Your task to perform on an android device: turn off location history Image 0: 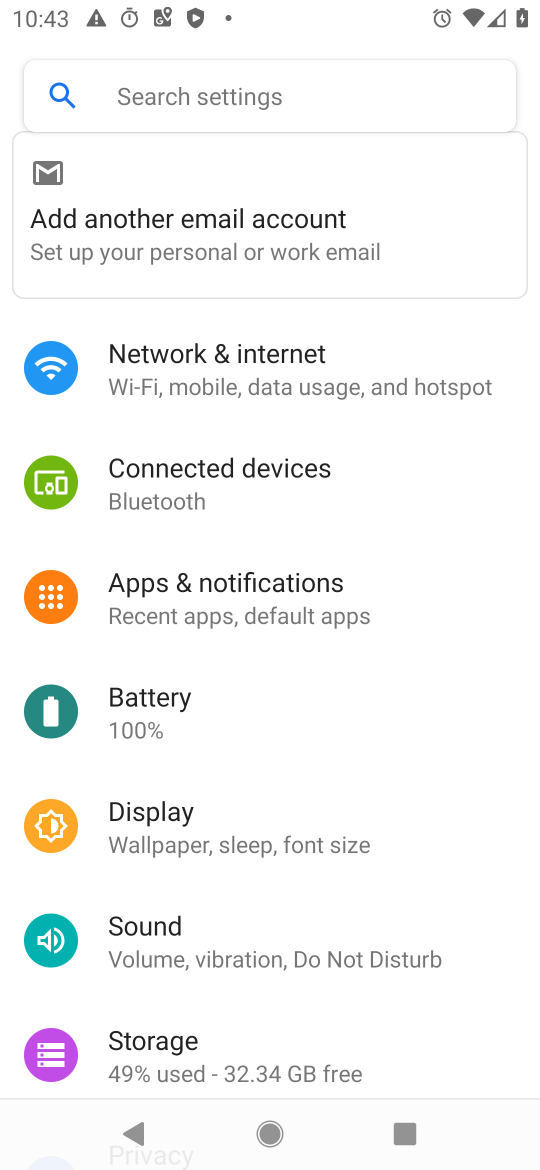
Step 0: press home button
Your task to perform on an android device: turn off location history Image 1: 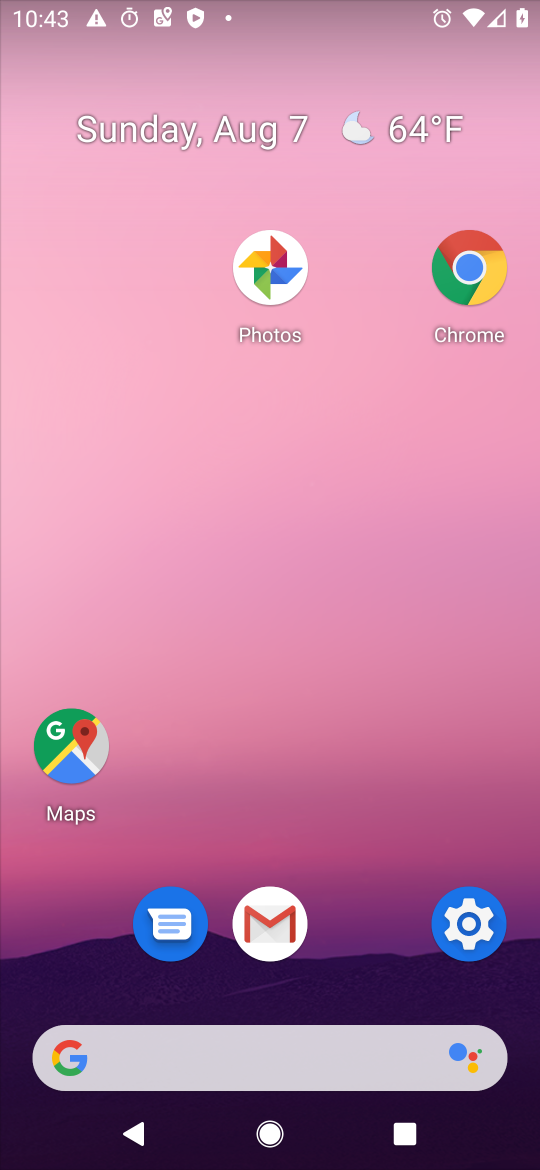
Step 1: click (468, 914)
Your task to perform on an android device: turn off location history Image 2: 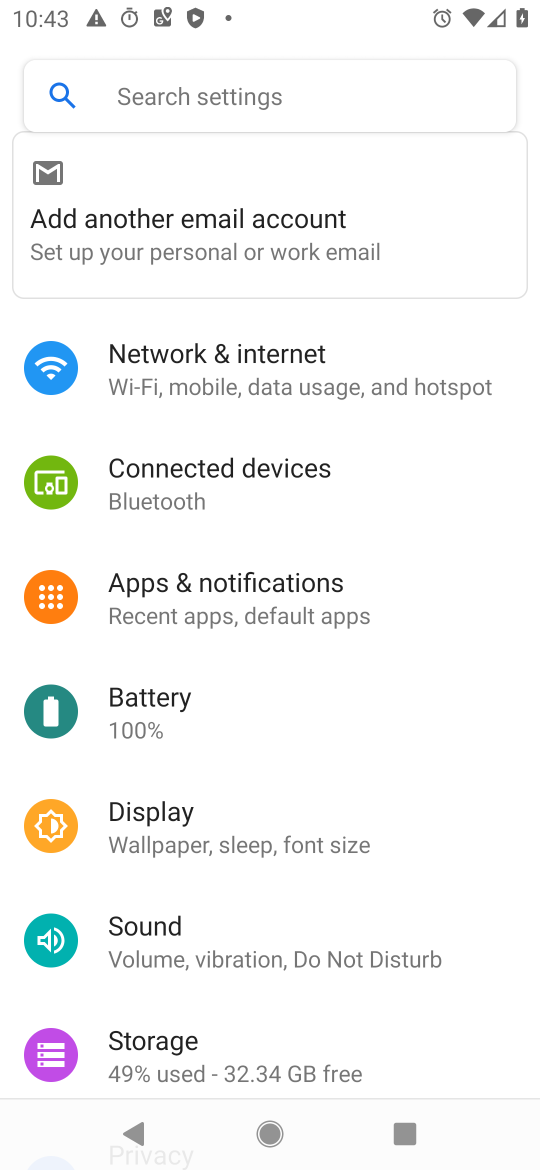
Step 2: click (171, 107)
Your task to perform on an android device: turn off location history Image 3: 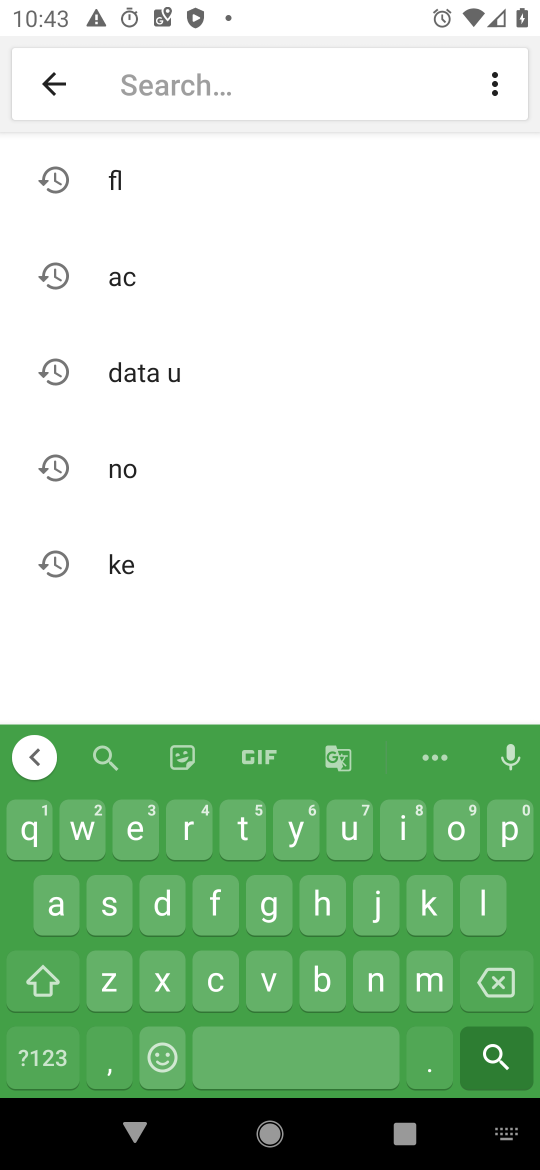
Step 3: click (486, 910)
Your task to perform on an android device: turn off location history Image 4: 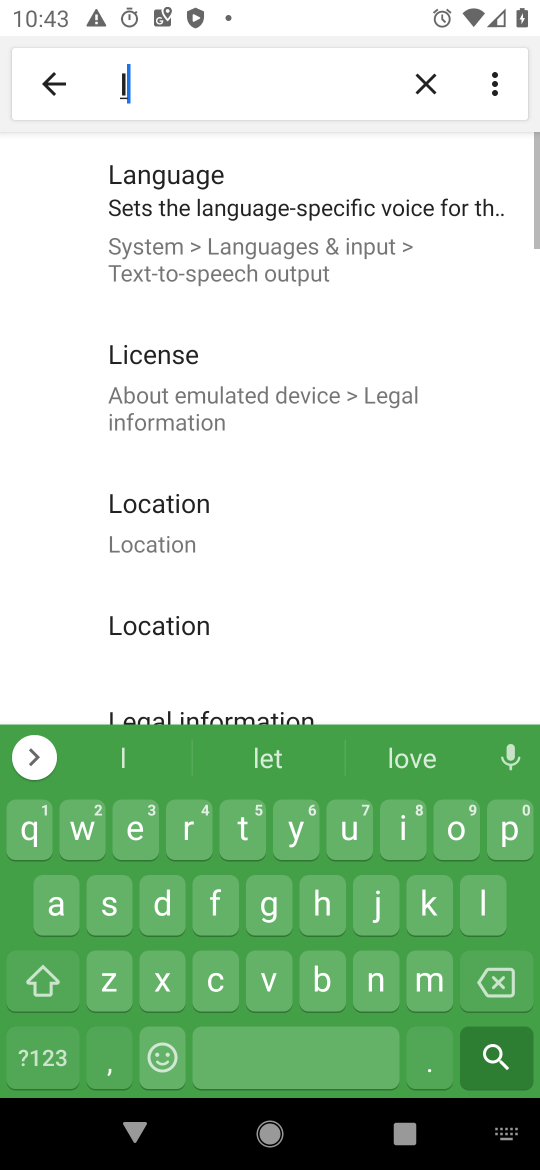
Step 4: click (450, 839)
Your task to perform on an android device: turn off location history Image 5: 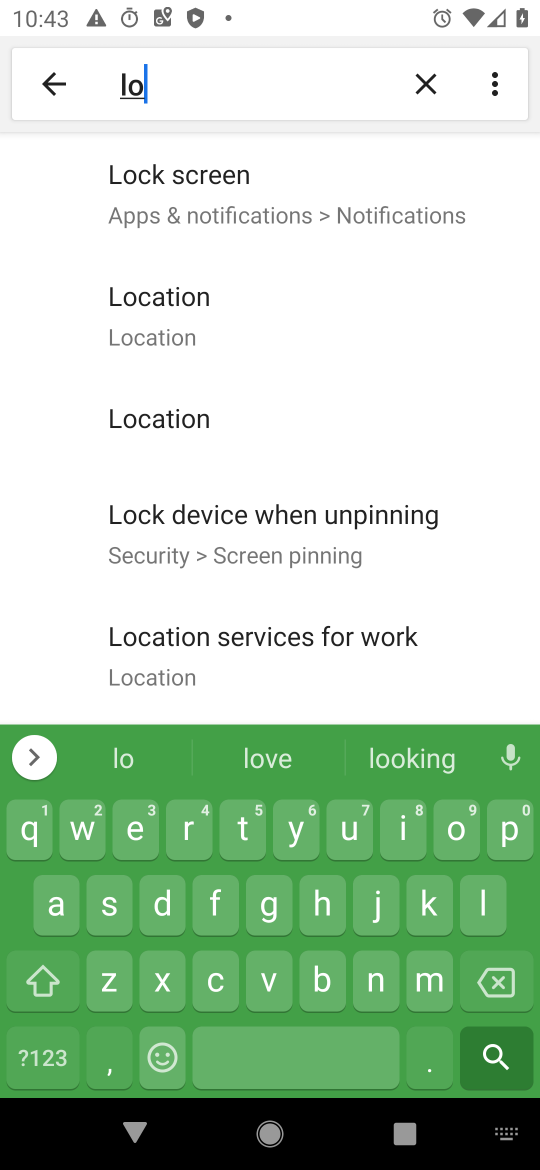
Step 5: click (185, 334)
Your task to perform on an android device: turn off location history Image 6: 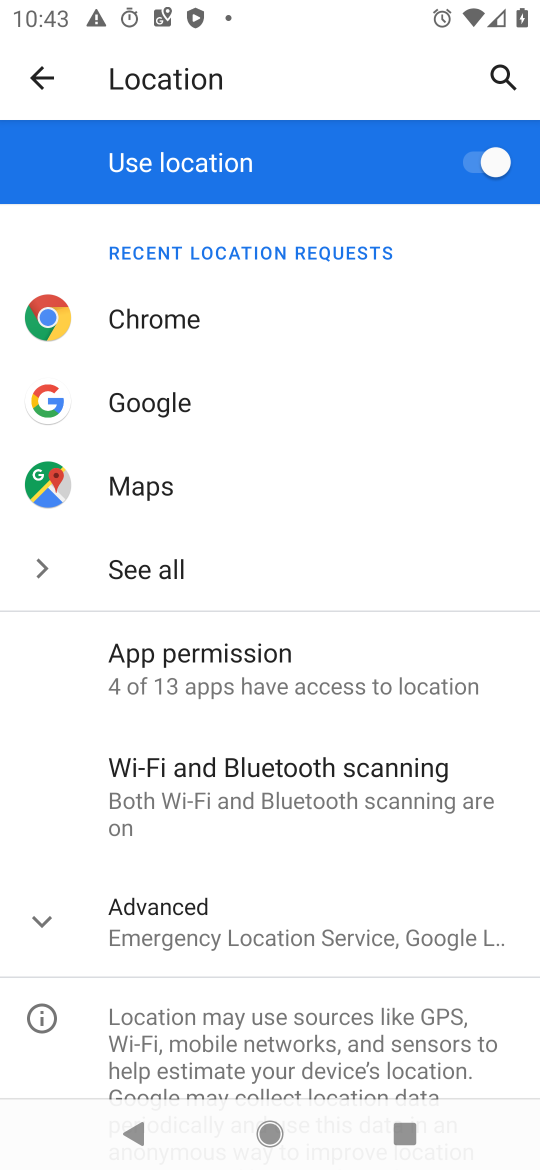
Step 6: click (37, 923)
Your task to perform on an android device: turn off location history Image 7: 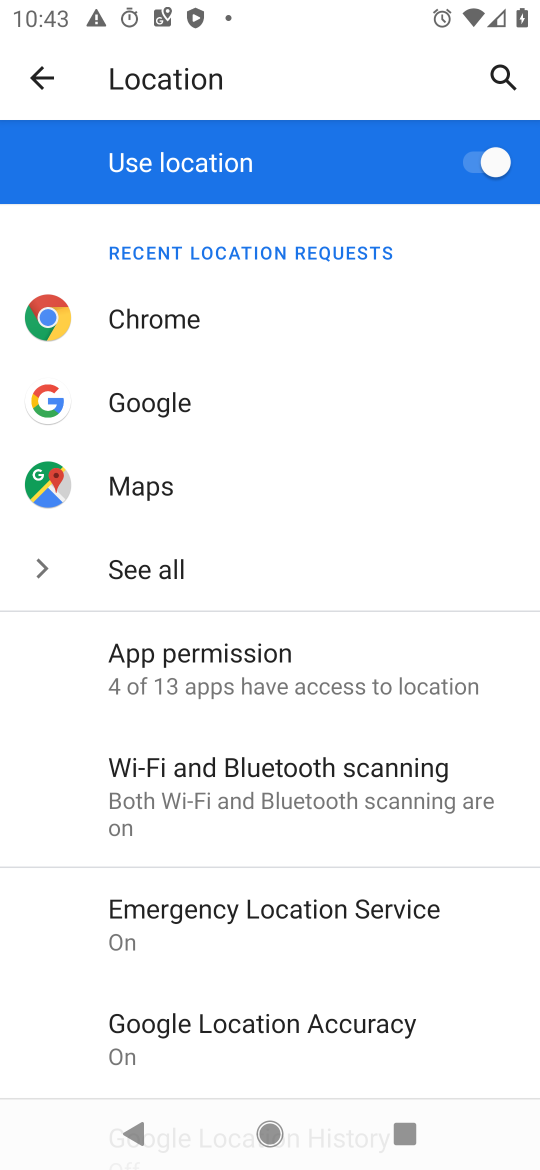
Step 7: drag from (283, 979) to (246, 822)
Your task to perform on an android device: turn off location history Image 8: 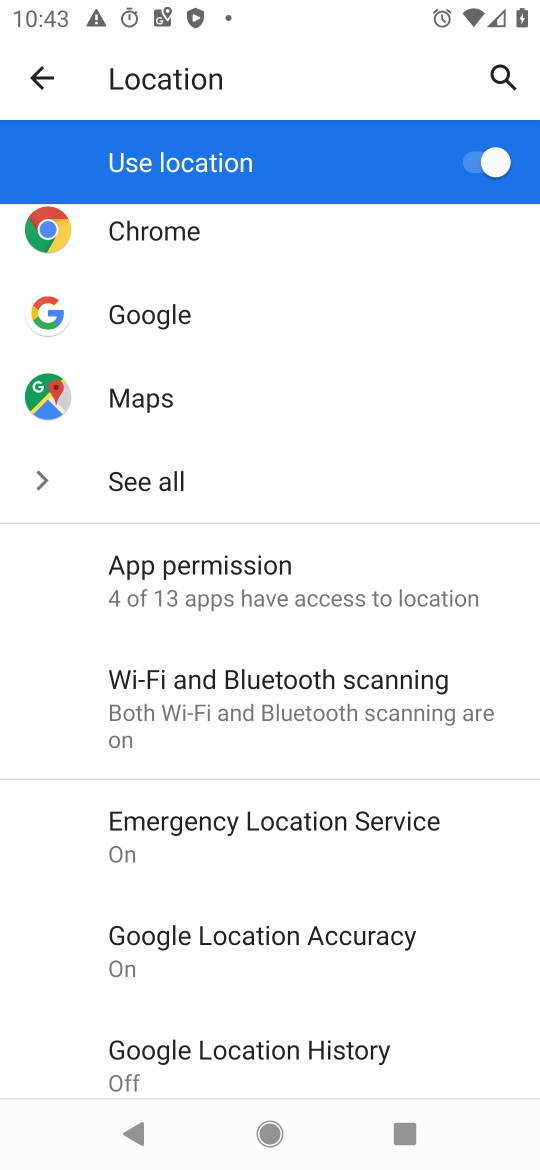
Step 8: click (290, 1050)
Your task to perform on an android device: turn off location history Image 9: 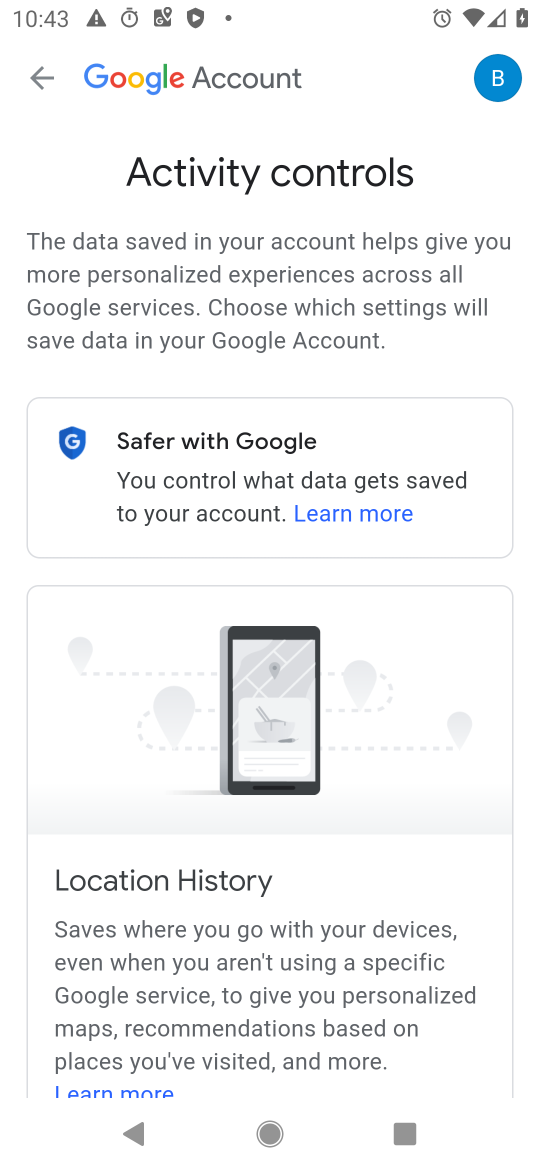
Step 9: task complete